Your task to perform on an android device: toggle priority inbox in the gmail app Image 0: 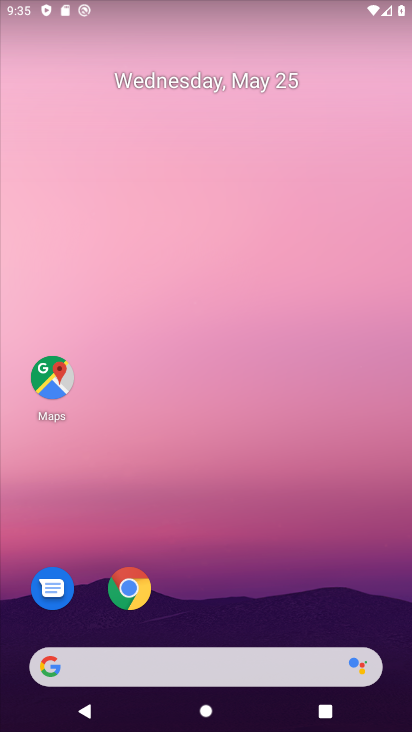
Step 0: drag from (242, 615) to (266, 120)
Your task to perform on an android device: toggle priority inbox in the gmail app Image 1: 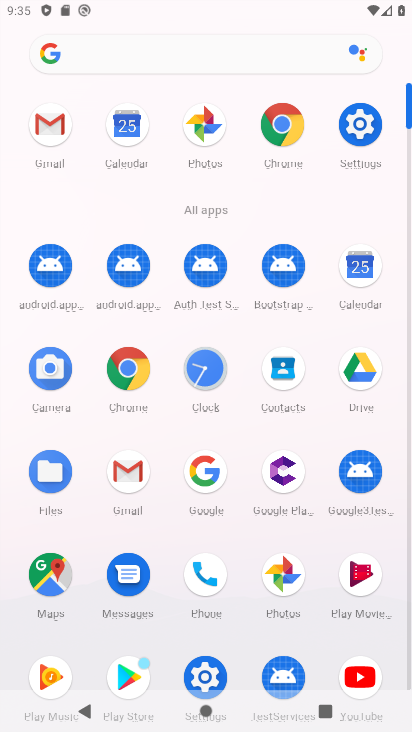
Step 1: click (121, 466)
Your task to perform on an android device: toggle priority inbox in the gmail app Image 2: 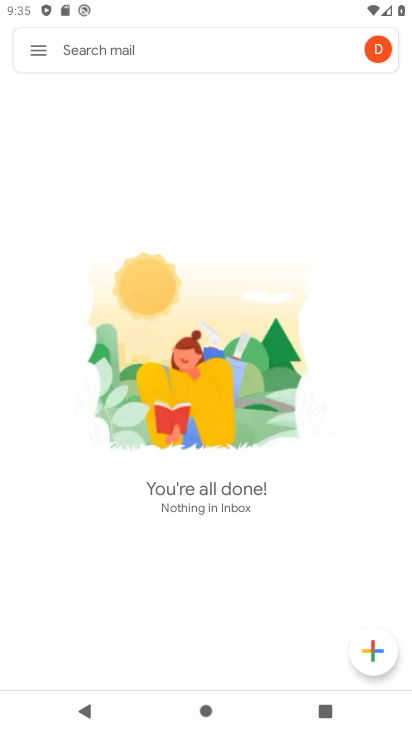
Step 2: click (29, 45)
Your task to perform on an android device: toggle priority inbox in the gmail app Image 3: 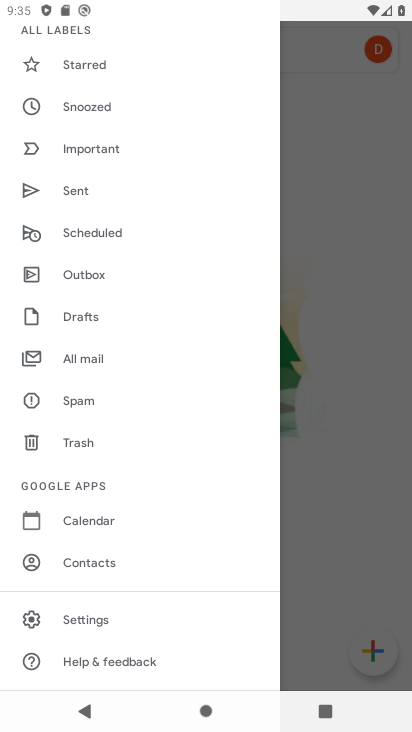
Step 3: click (99, 620)
Your task to perform on an android device: toggle priority inbox in the gmail app Image 4: 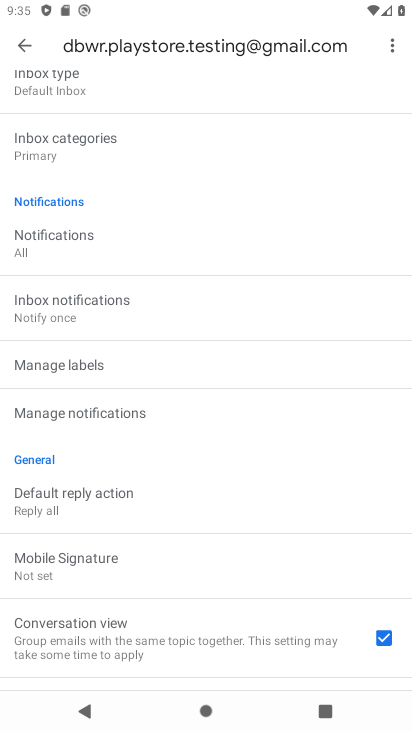
Step 4: click (32, 88)
Your task to perform on an android device: toggle priority inbox in the gmail app Image 5: 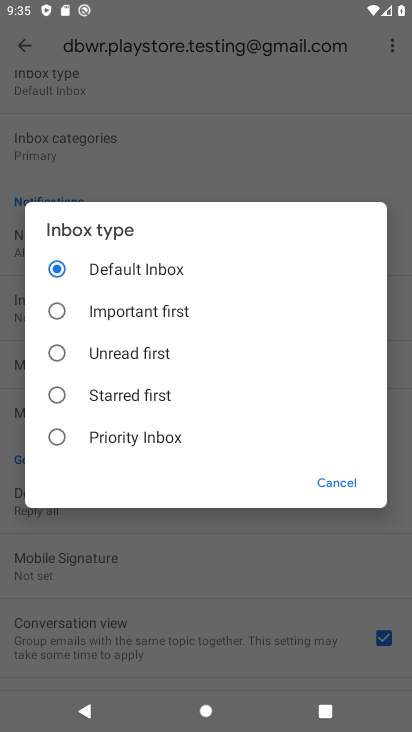
Step 5: click (89, 434)
Your task to perform on an android device: toggle priority inbox in the gmail app Image 6: 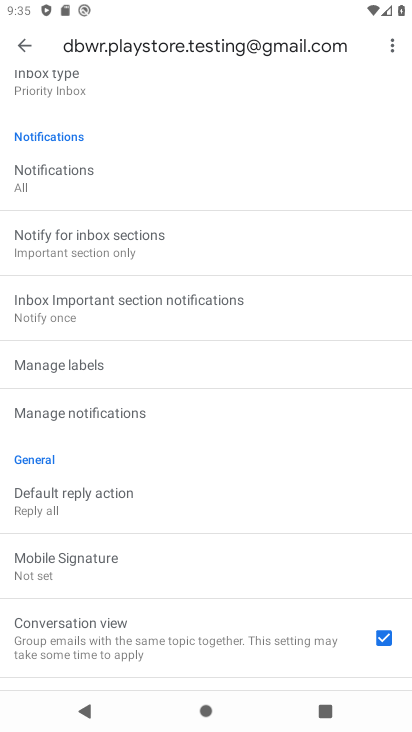
Step 6: task complete